Your task to perform on an android device: turn on data saver in the chrome app Image 0: 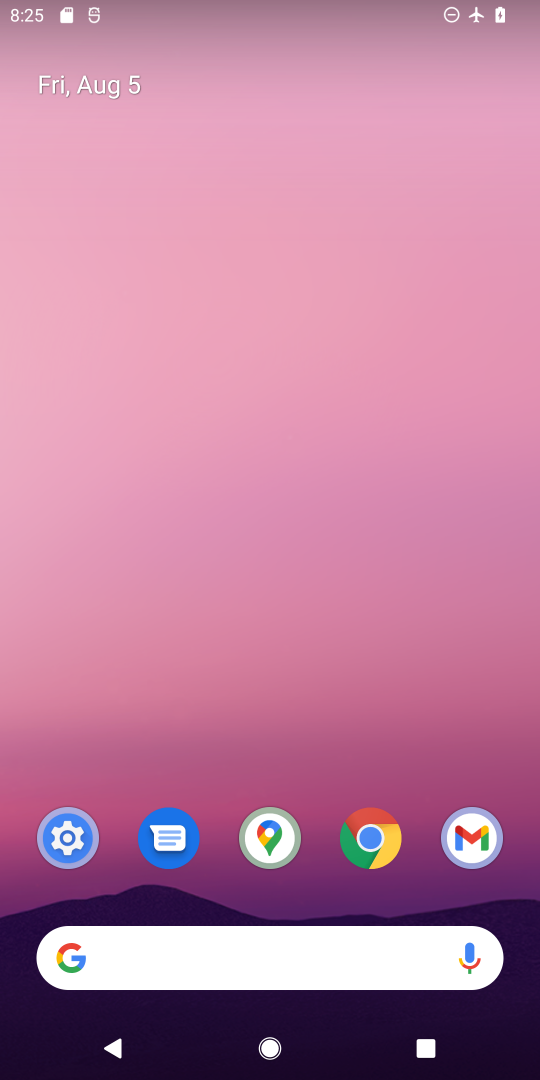
Step 0: click (365, 847)
Your task to perform on an android device: turn on data saver in the chrome app Image 1: 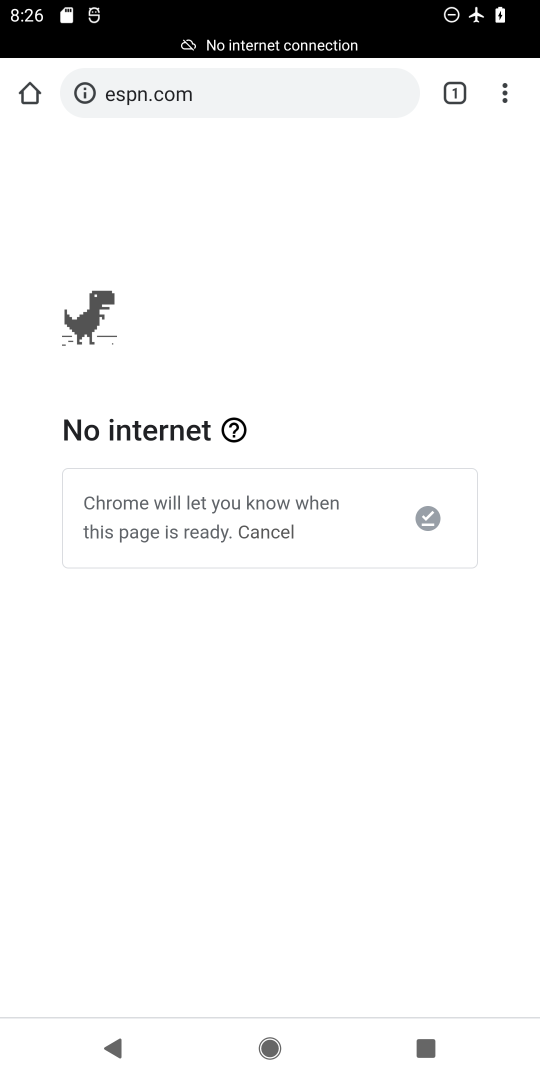
Step 1: click (505, 102)
Your task to perform on an android device: turn on data saver in the chrome app Image 2: 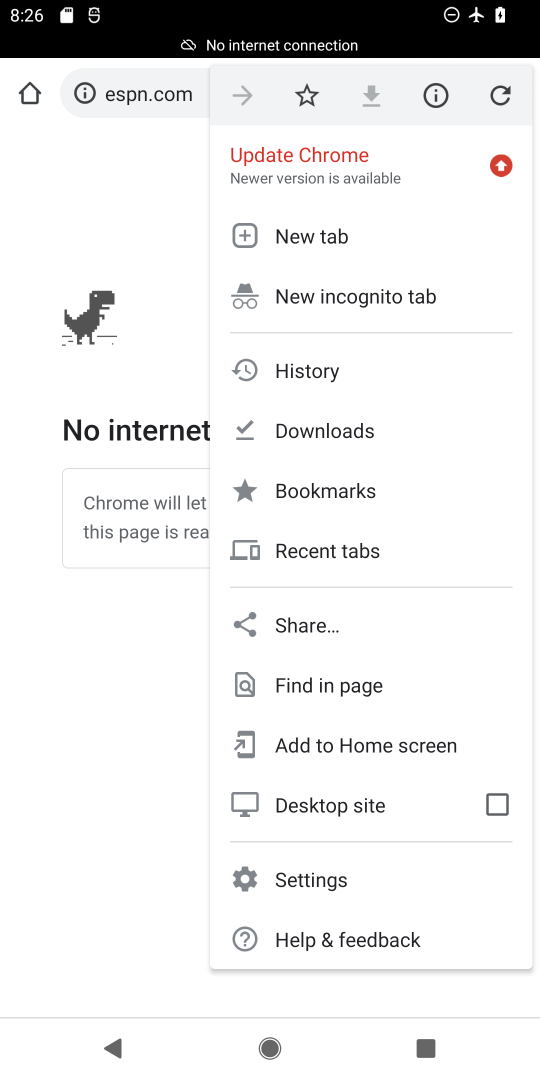
Step 2: click (317, 877)
Your task to perform on an android device: turn on data saver in the chrome app Image 3: 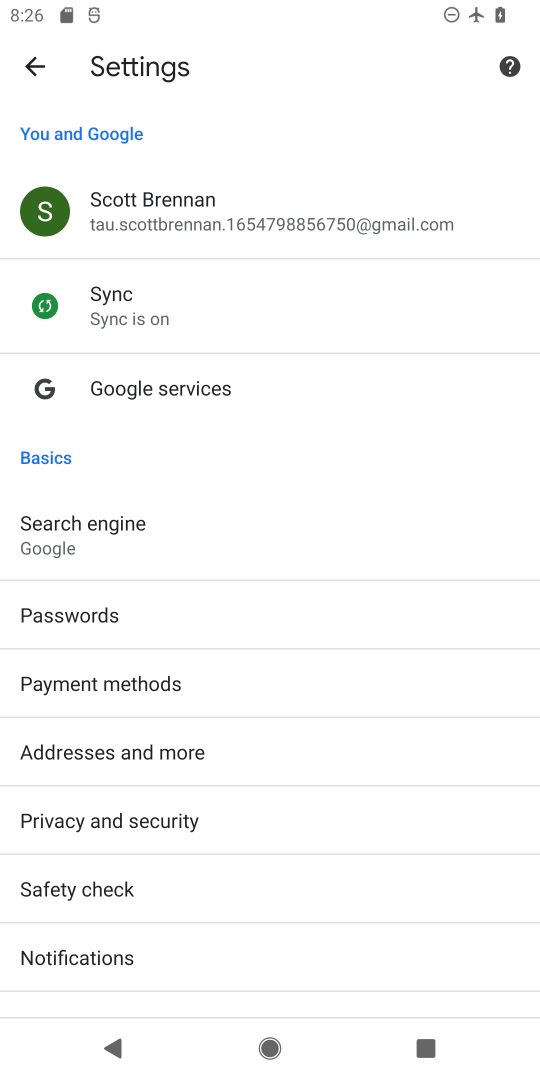
Step 3: drag from (105, 871) to (105, 510)
Your task to perform on an android device: turn on data saver in the chrome app Image 4: 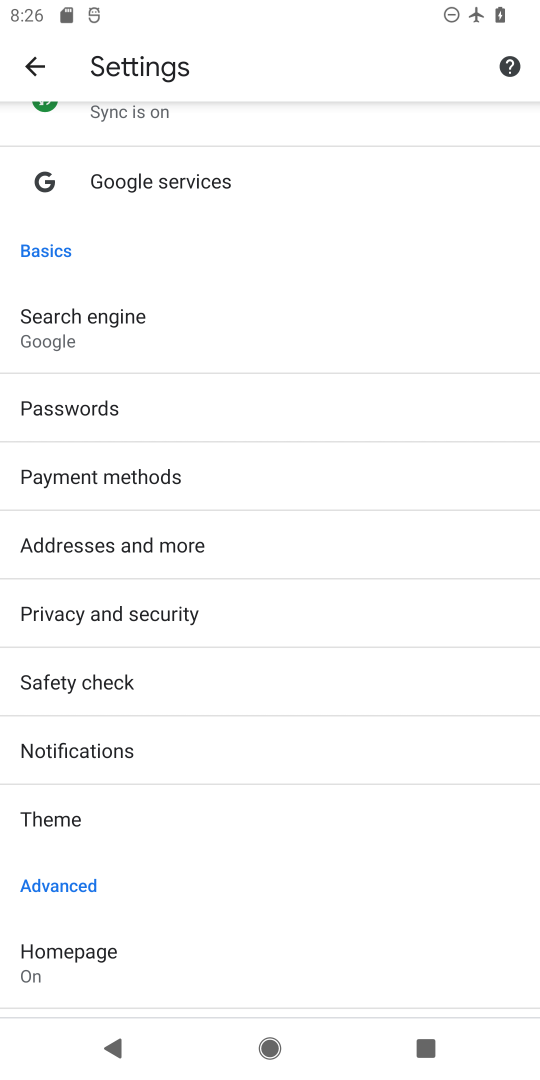
Step 4: drag from (71, 767) to (103, 520)
Your task to perform on an android device: turn on data saver in the chrome app Image 5: 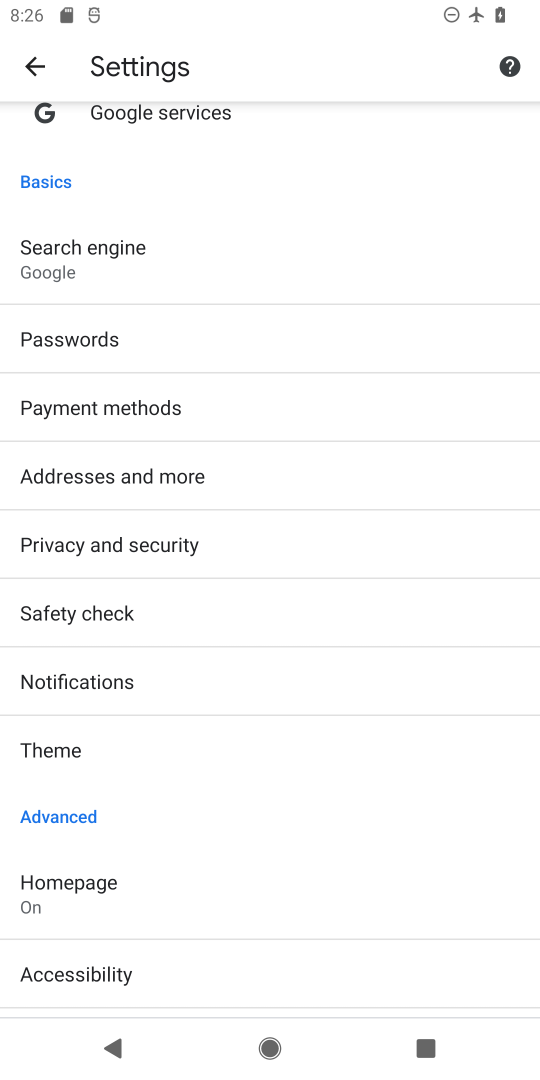
Step 5: drag from (62, 983) to (78, 542)
Your task to perform on an android device: turn on data saver in the chrome app Image 6: 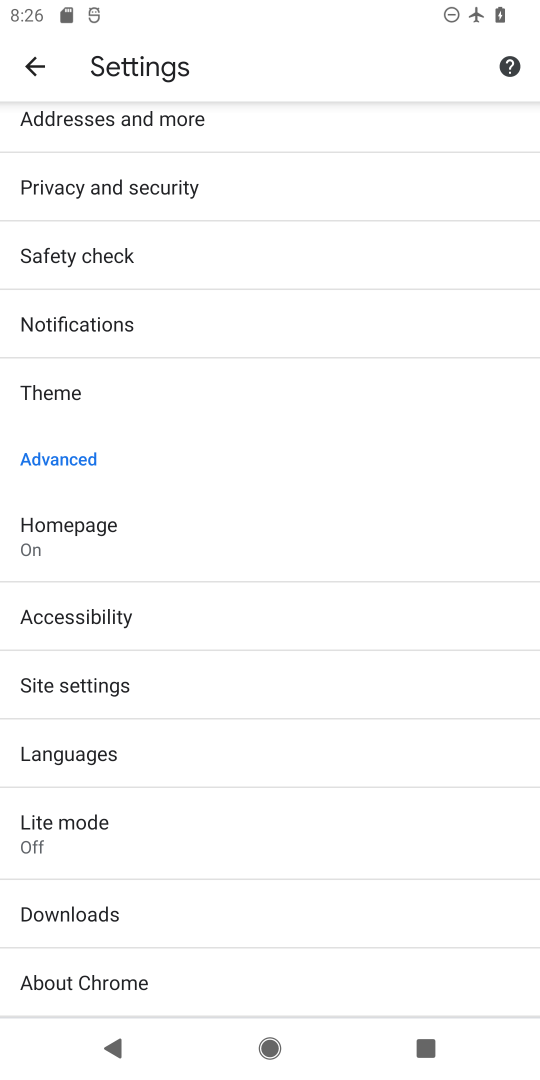
Step 6: click (96, 822)
Your task to perform on an android device: turn on data saver in the chrome app Image 7: 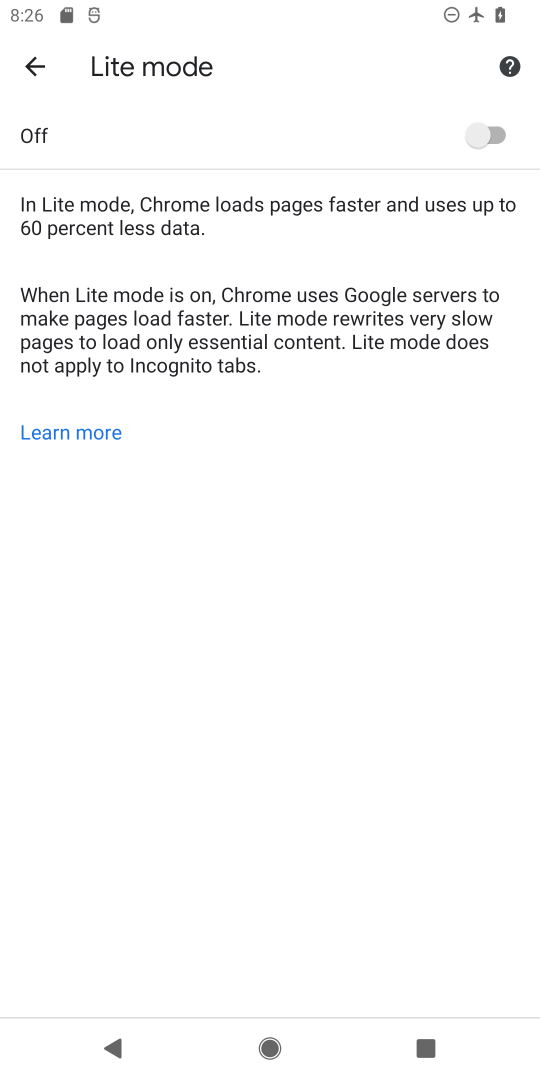
Step 7: click (500, 130)
Your task to perform on an android device: turn on data saver in the chrome app Image 8: 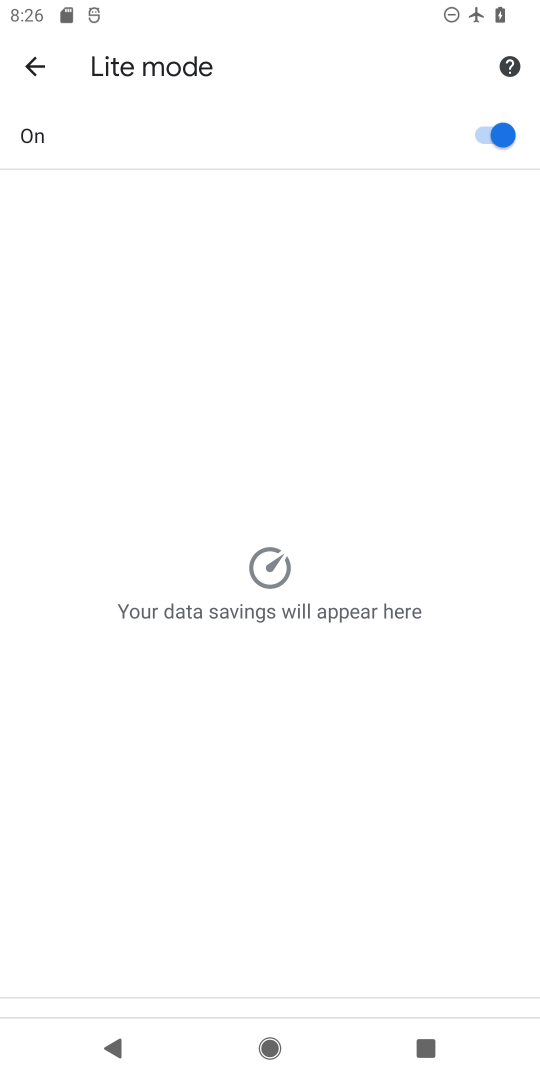
Step 8: task complete